Your task to perform on an android device: change your default location settings in chrome Image 0: 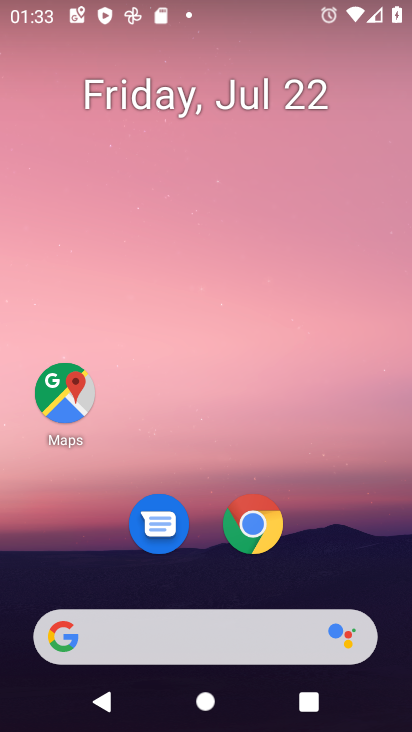
Step 0: press home button
Your task to perform on an android device: change your default location settings in chrome Image 1: 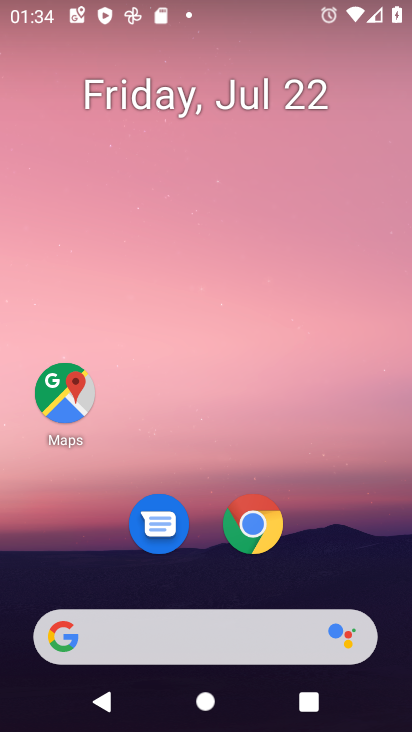
Step 1: click (247, 520)
Your task to perform on an android device: change your default location settings in chrome Image 2: 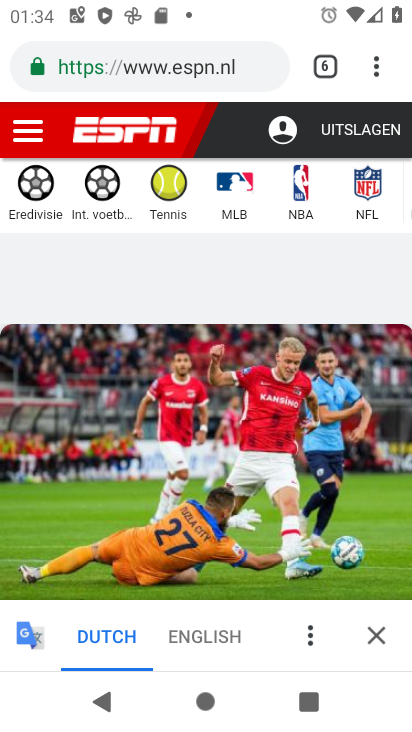
Step 2: drag from (380, 66) to (227, 528)
Your task to perform on an android device: change your default location settings in chrome Image 3: 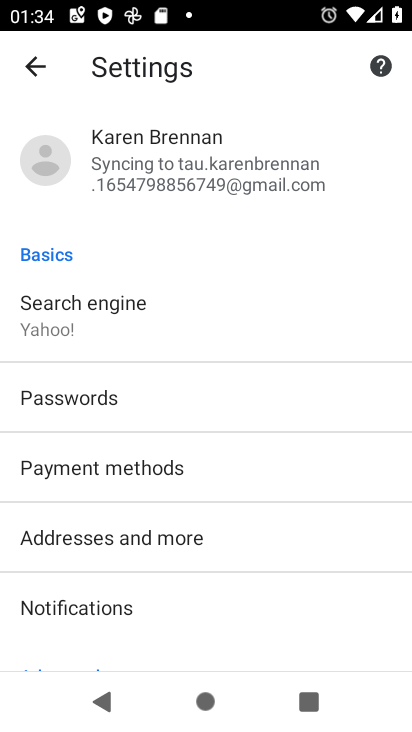
Step 3: drag from (208, 605) to (264, 211)
Your task to perform on an android device: change your default location settings in chrome Image 4: 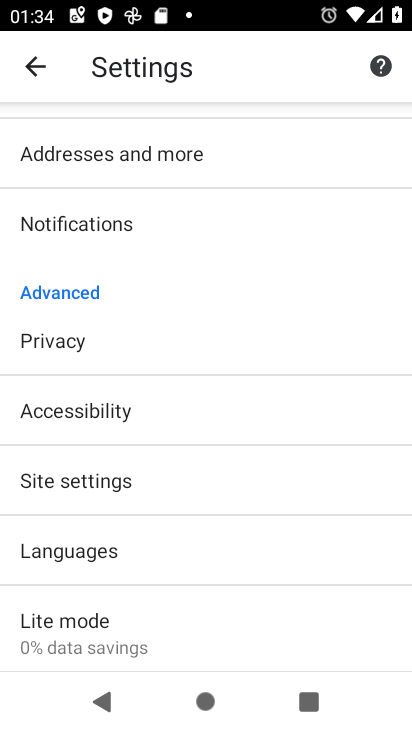
Step 4: click (114, 471)
Your task to perform on an android device: change your default location settings in chrome Image 5: 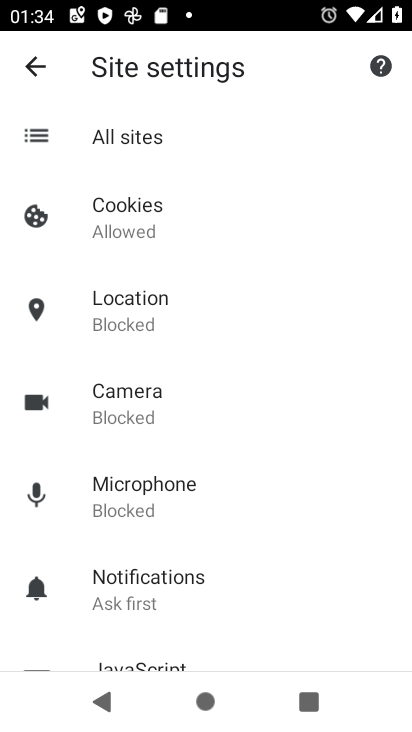
Step 5: click (155, 303)
Your task to perform on an android device: change your default location settings in chrome Image 6: 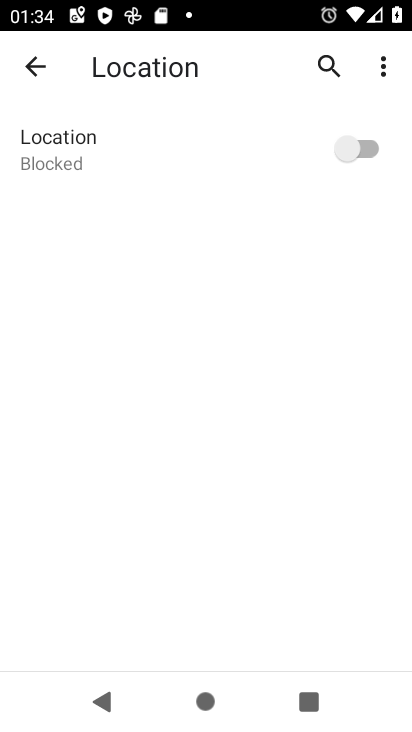
Step 6: click (365, 152)
Your task to perform on an android device: change your default location settings in chrome Image 7: 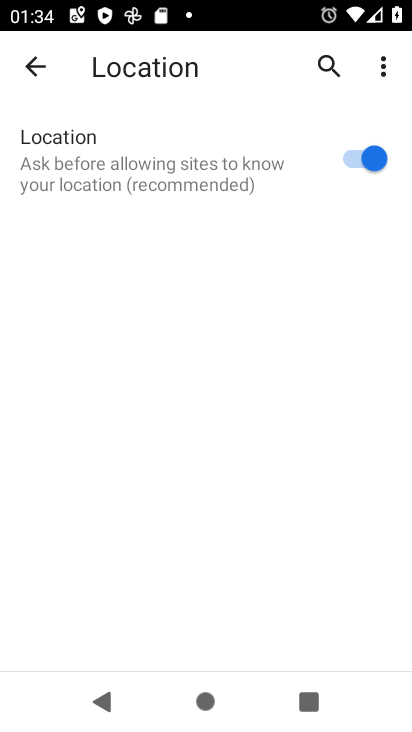
Step 7: task complete